Your task to perform on an android device: delete a single message in the gmail app Image 0: 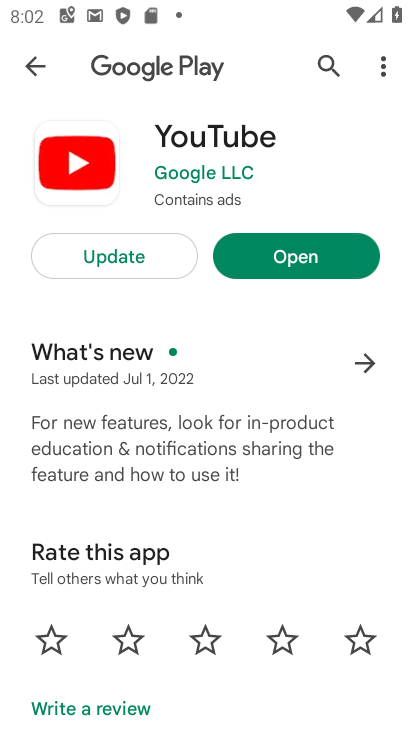
Step 0: press home button
Your task to perform on an android device: delete a single message in the gmail app Image 1: 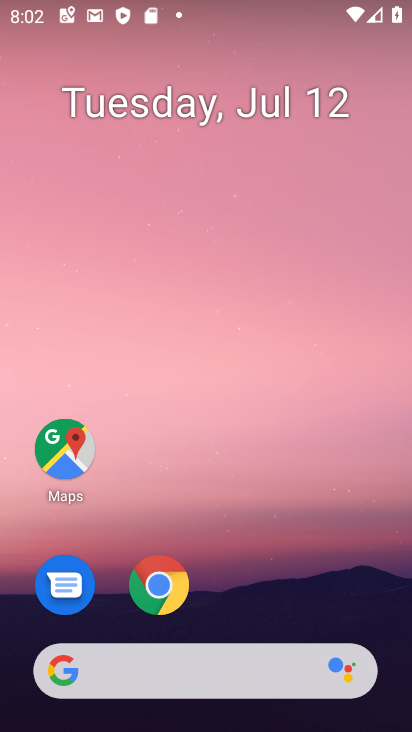
Step 1: drag from (277, 574) to (282, 31)
Your task to perform on an android device: delete a single message in the gmail app Image 2: 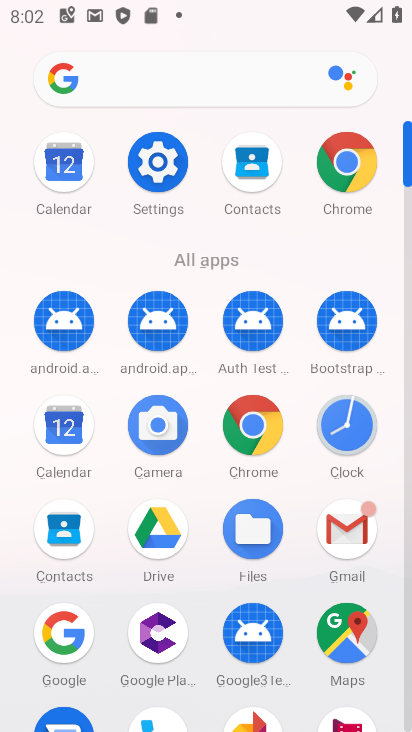
Step 2: click (338, 527)
Your task to perform on an android device: delete a single message in the gmail app Image 3: 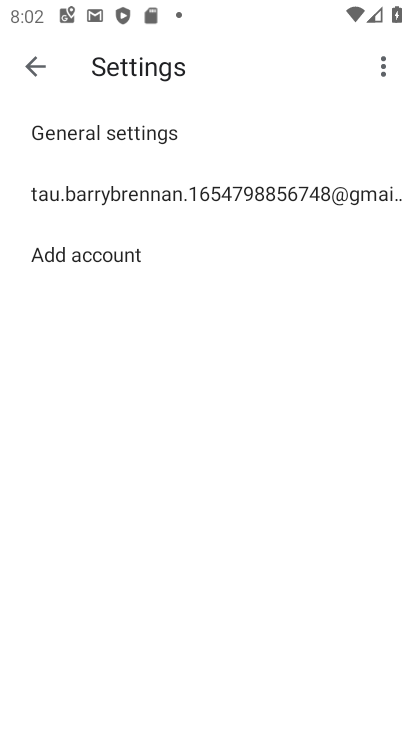
Step 3: click (36, 61)
Your task to perform on an android device: delete a single message in the gmail app Image 4: 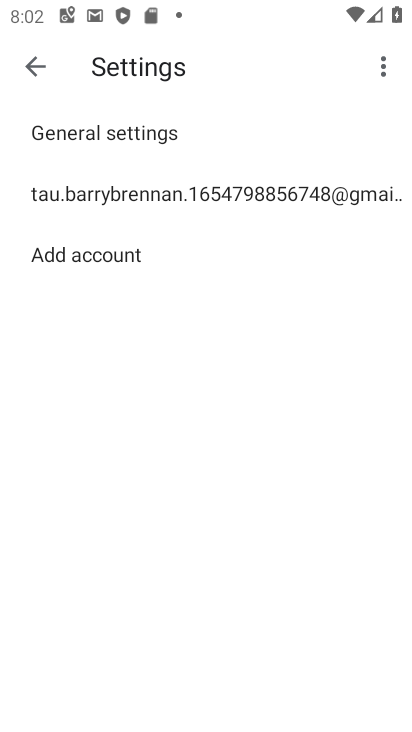
Step 4: click (36, 64)
Your task to perform on an android device: delete a single message in the gmail app Image 5: 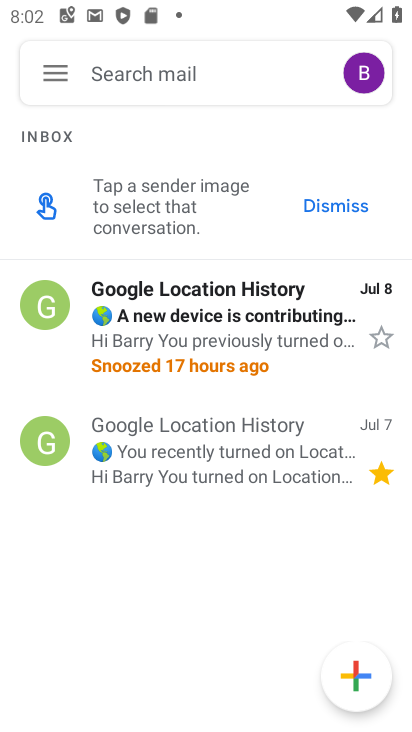
Step 5: click (185, 438)
Your task to perform on an android device: delete a single message in the gmail app Image 6: 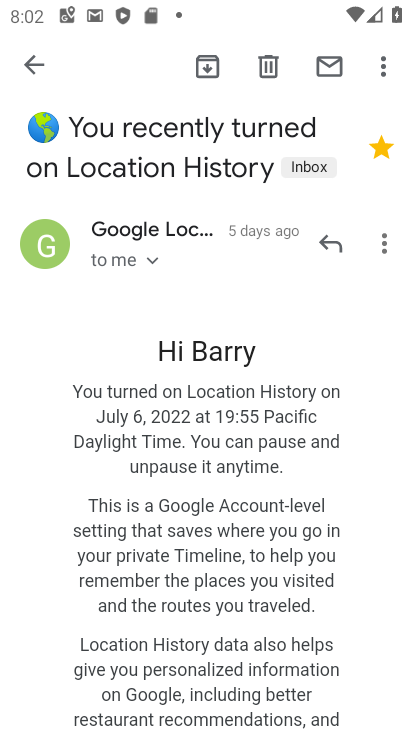
Step 6: click (266, 58)
Your task to perform on an android device: delete a single message in the gmail app Image 7: 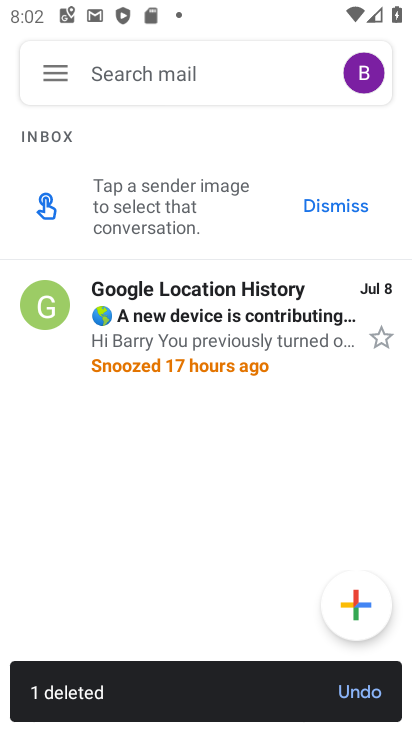
Step 7: task complete